Your task to perform on an android device: Set the phone to "Do not disturb". Image 0: 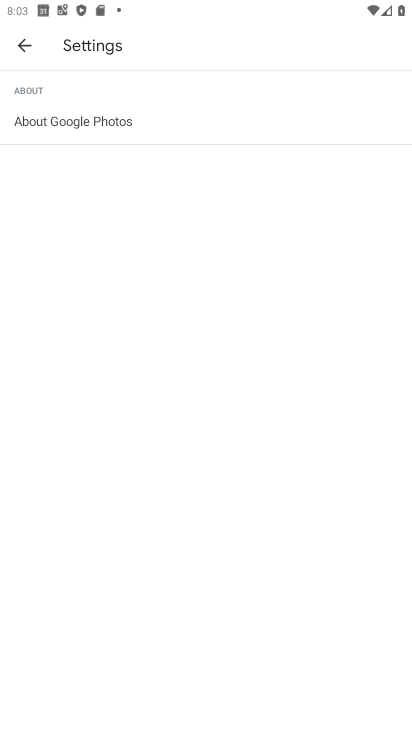
Step 0: press home button
Your task to perform on an android device: Set the phone to "Do not disturb". Image 1: 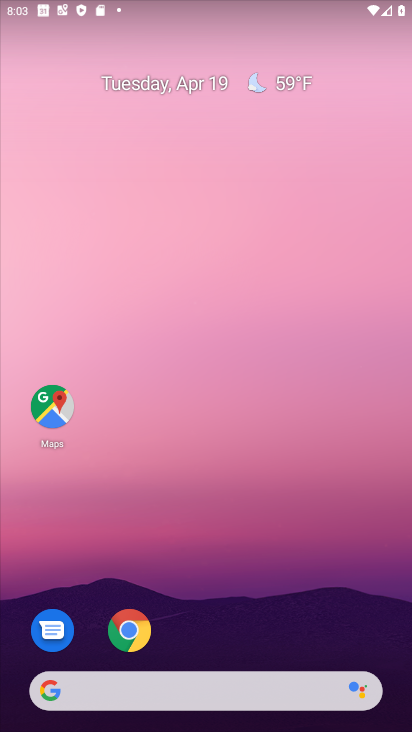
Step 1: drag from (201, 576) to (232, 10)
Your task to perform on an android device: Set the phone to "Do not disturb". Image 2: 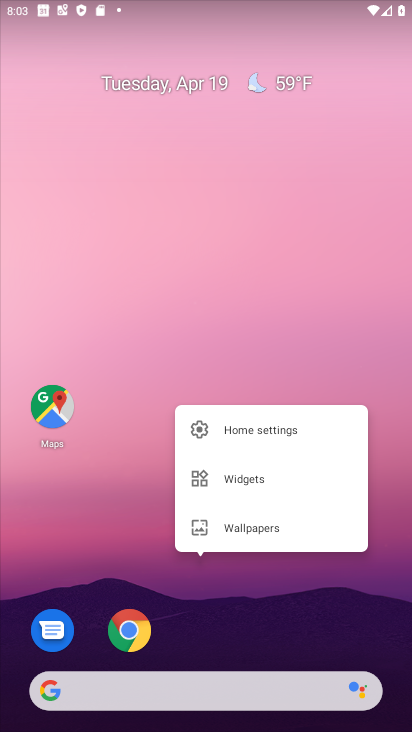
Step 2: drag from (214, 664) to (225, 75)
Your task to perform on an android device: Set the phone to "Do not disturb". Image 3: 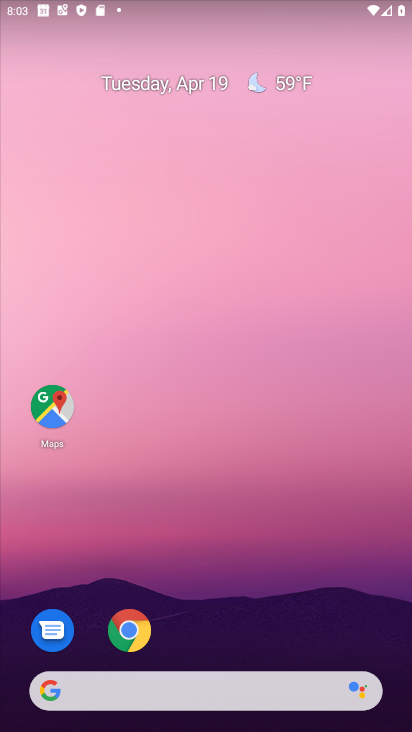
Step 3: drag from (217, 535) to (240, 23)
Your task to perform on an android device: Set the phone to "Do not disturb". Image 4: 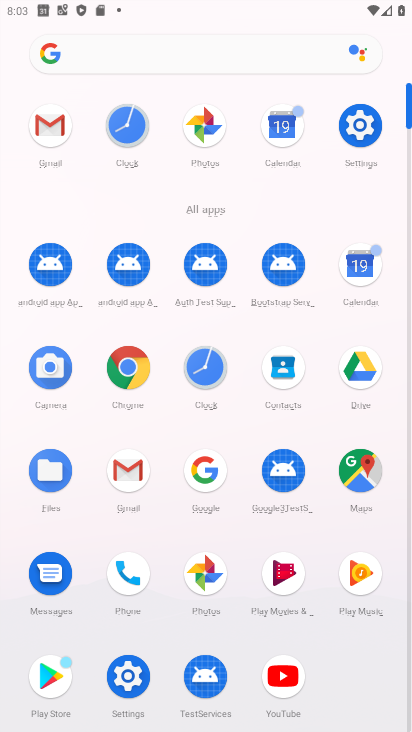
Step 4: click (360, 105)
Your task to perform on an android device: Set the phone to "Do not disturb". Image 5: 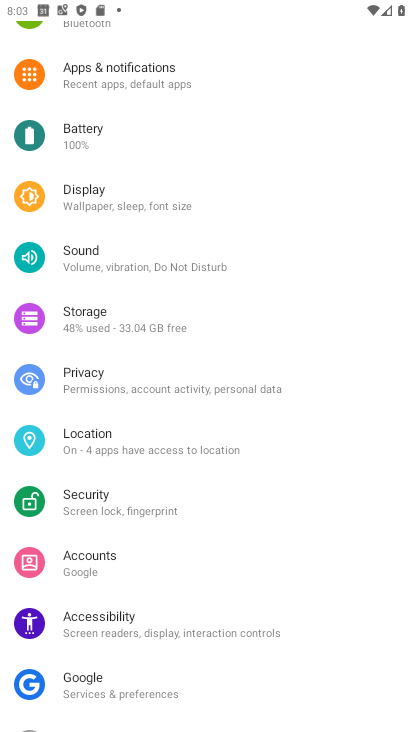
Step 5: click (154, 257)
Your task to perform on an android device: Set the phone to "Do not disturb". Image 6: 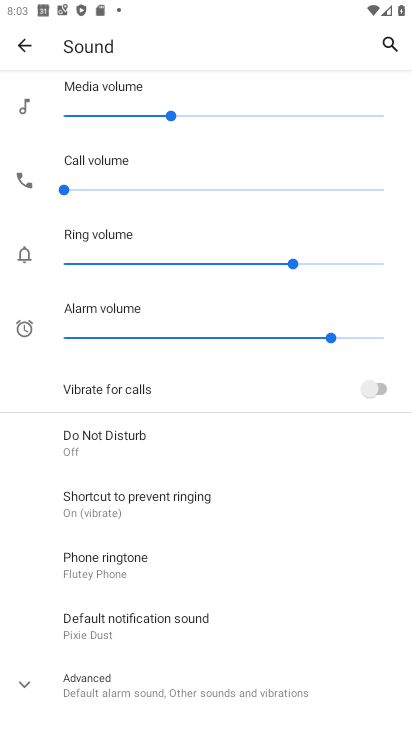
Step 6: click (144, 437)
Your task to perform on an android device: Set the phone to "Do not disturb". Image 7: 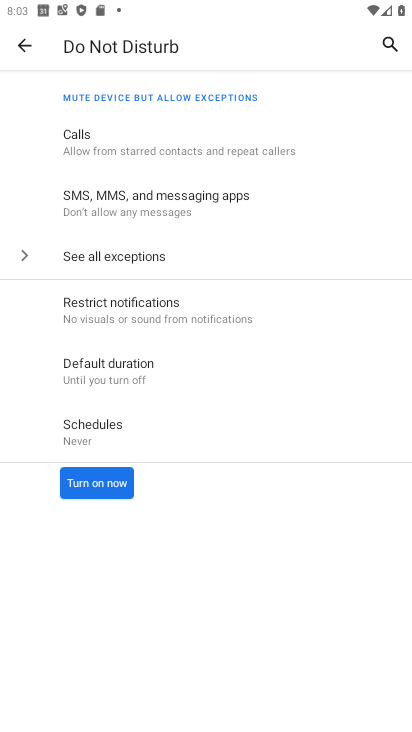
Step 7: click (90, 482)
Your task to perform on an android device: Set the phone to "Do not disturb". Image 8: 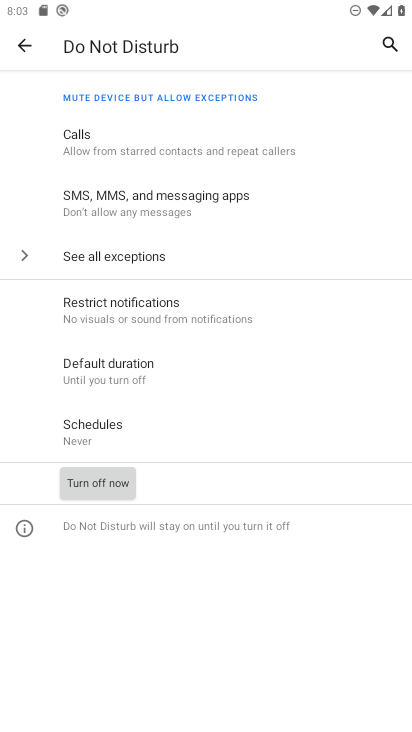
Step 8: task complete